Your task to perform on an android device: check android version Image 0: 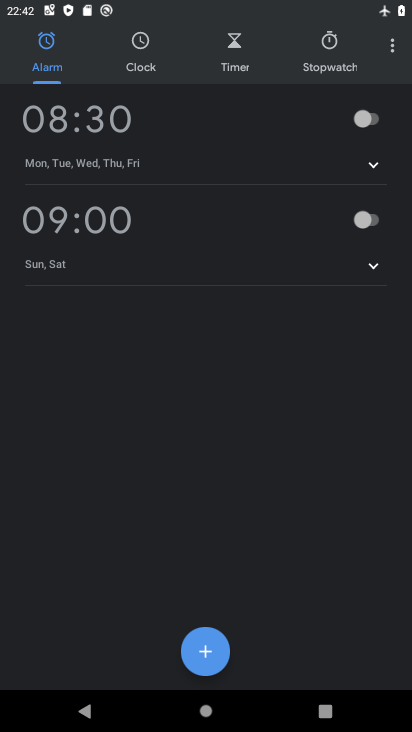
Step 0: press home button
Your task to perform on an android device: check android version Image 1: 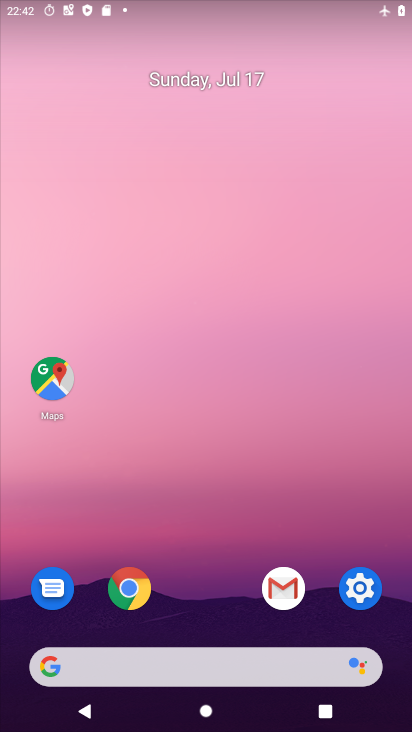
Step 1: click (358, 600)
Your task to perform on an android device: check android version Image 2: 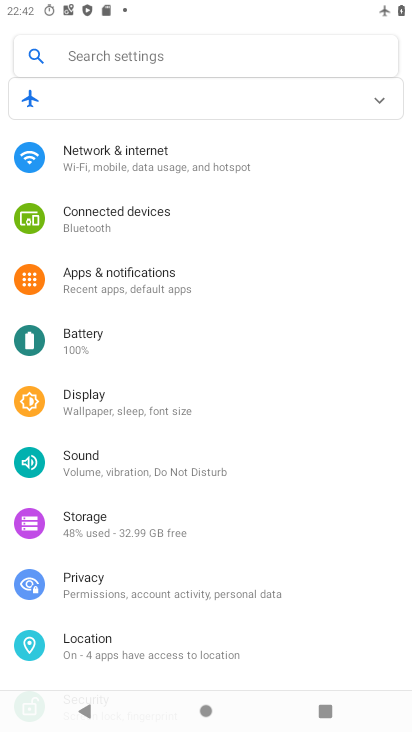
Step 2: click (119, 59)
Your task to perform on an android device: check android version Image 3: 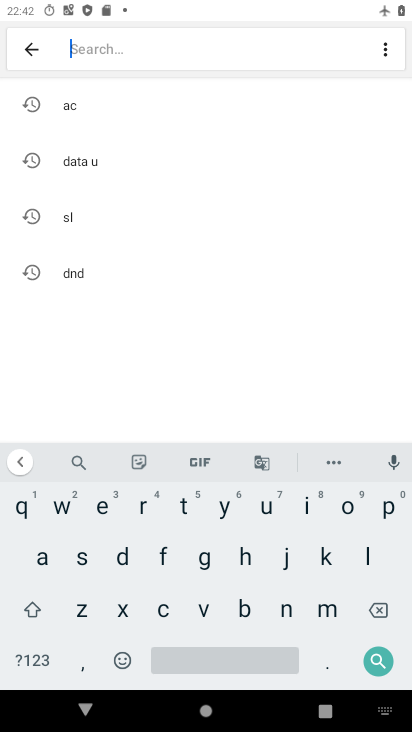
Step 3: click (47, 554)
Your task to perform on an android device: check android version Image 4: 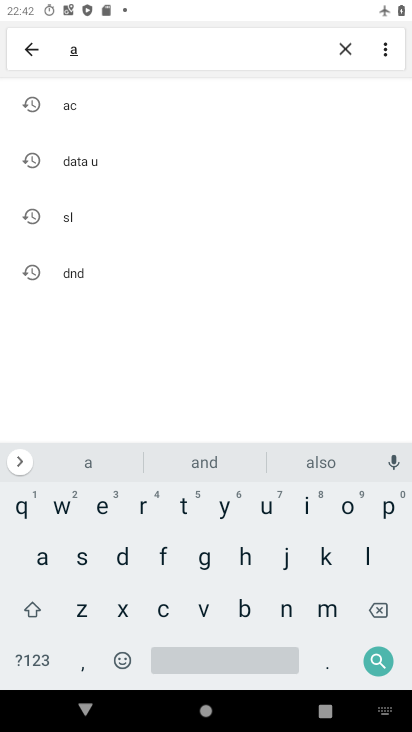
Step 4: click (286, 605)
Your task to perform on an android device: check android version Image 5: 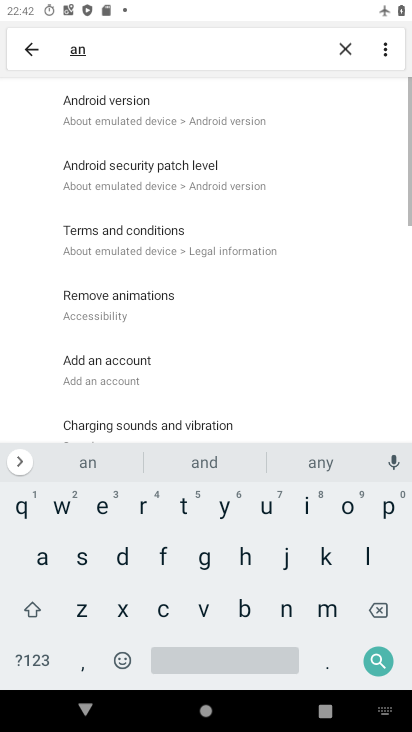
Step 5: click (147, 114)
Your task to perform on an android device: check android version Image 6: 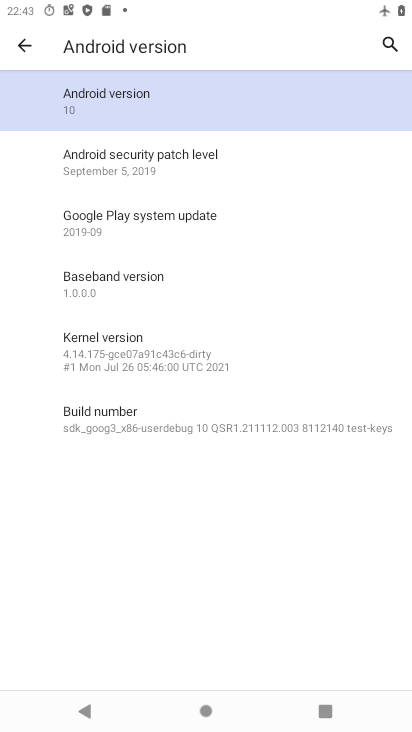
Step 6: click (122, 96)
Your task to perform on an android device: check android version Image 7: 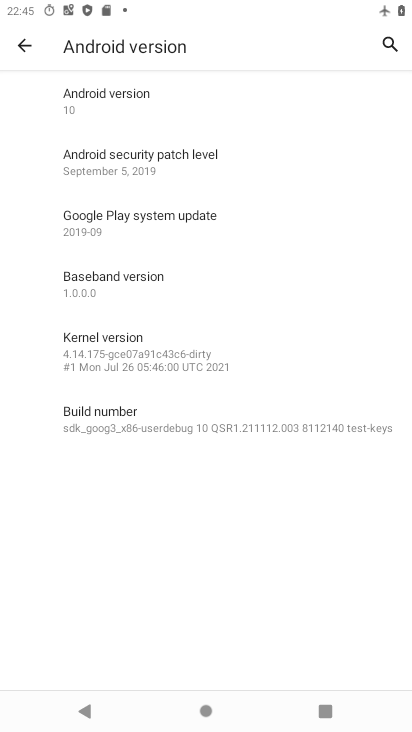
Step 7: task complete